Your task to perform on an android device: Open Google Maps and go to "Timeline" Image 0: 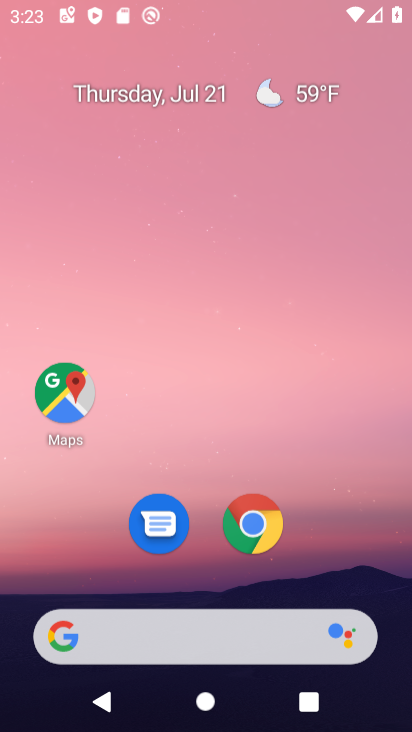
Step 0: press home button
Your task to perform on an android device: Open Google Maps and go to "Timeline" Image 1: 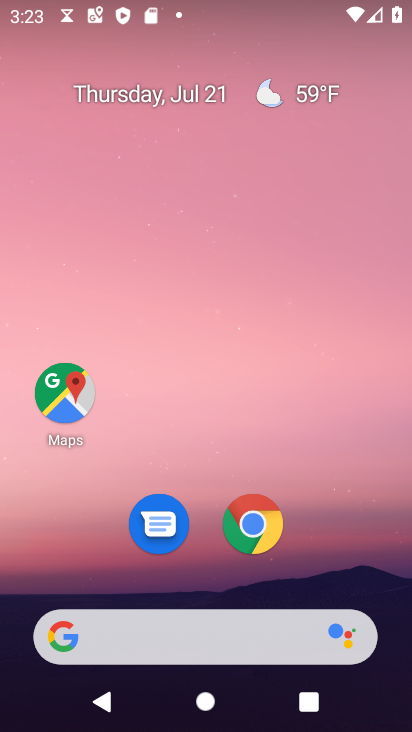
Step 1: drag from (192, 635) to (321, 78)
Your task to perform on an android device: Open Google Maps and go to "Timeline" Image 2: 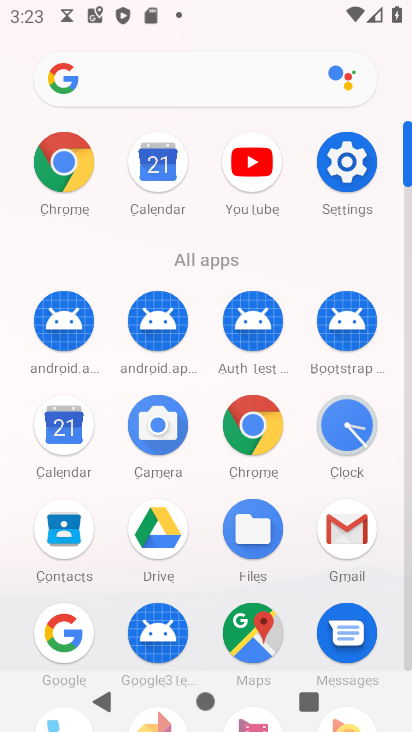
Step 2: drag from (295, 623) to (303, 94)
Your task to perform on an android device: Open Google Maps and go to "Timeline" Image 3: 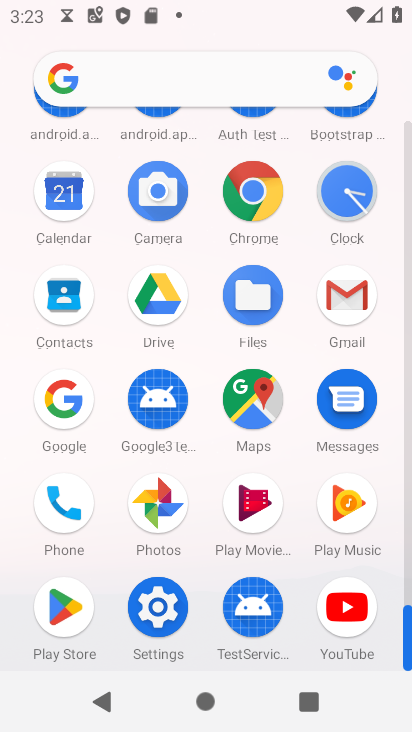
Step 3: click (259, 514)
Your task to perform on an android device: Open Google Maps and go to "Timeline" Image 4: 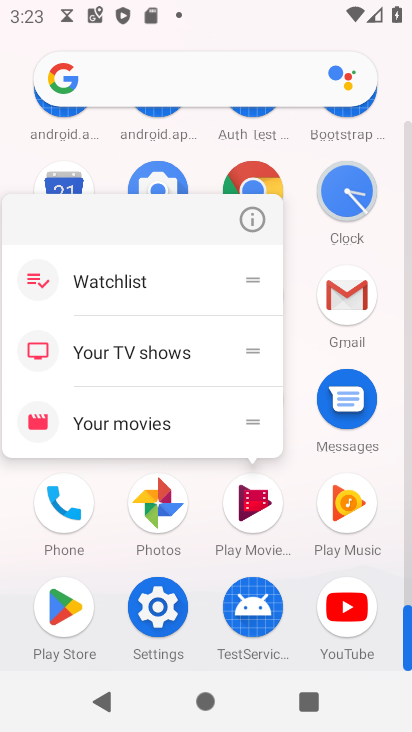
Step 4: click (263, 506)
Your task to perform on an android device: Open Google Maps and go to "Timeline" Image 5: 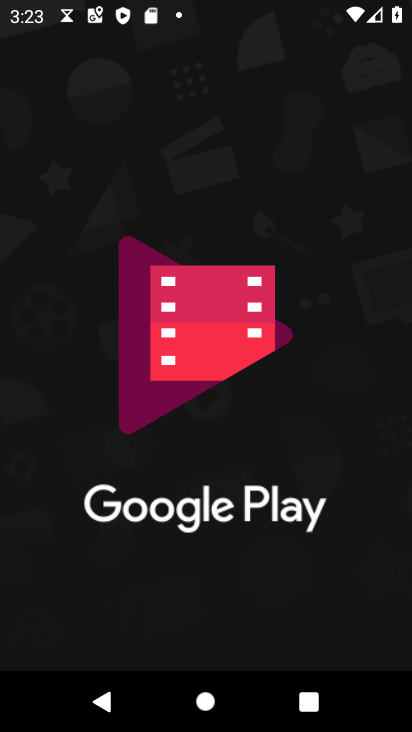
Step 5: drag from (338, 641) to (359, 328)
Your task to perform on an android device: Open Google Maps and go to "Timeline" Image 6: 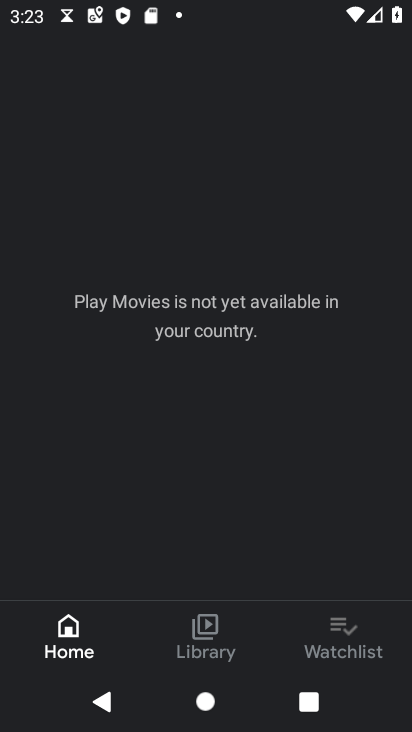
Step 6: click (365, 650)
Your task to perform on an android device: Open Google Maps and go to "Timeline" Image 7: 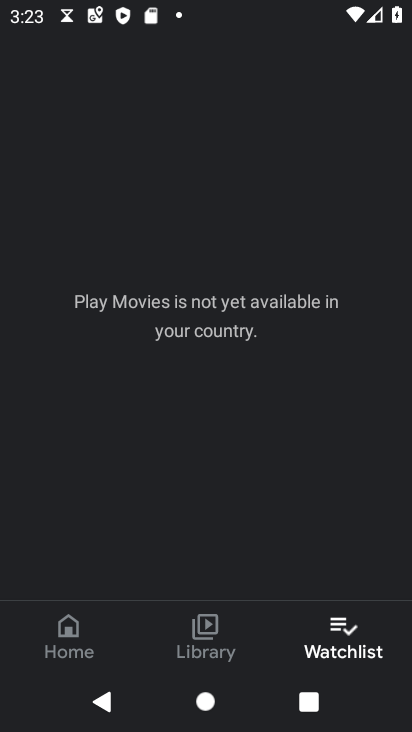
Step 7: task complete